Your task to perform on an android device: What's the weather? Image 0: 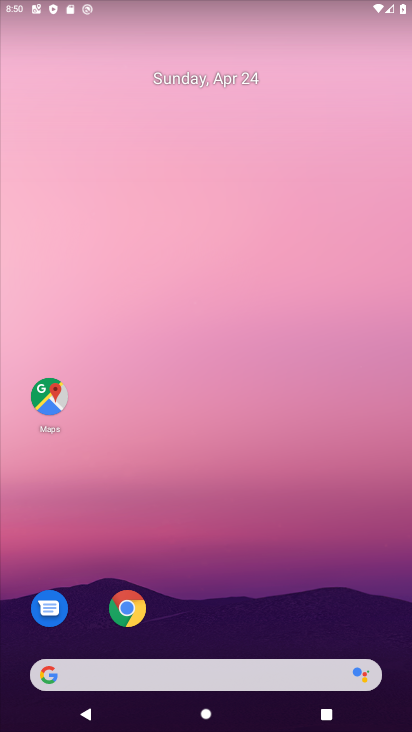
Step 0: drag from (268, 685) to (212, 130)
Your task to perform on an android device: What's the weather? Image 1: 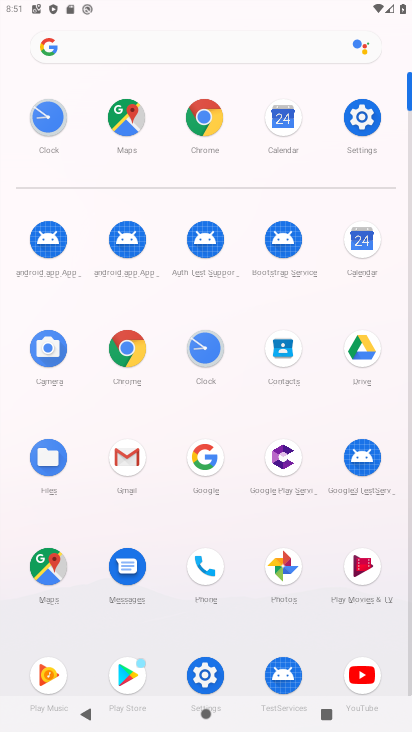
Step 1: click (175, 39)
Your task to perform on an android device: What's the weather? Image 2: 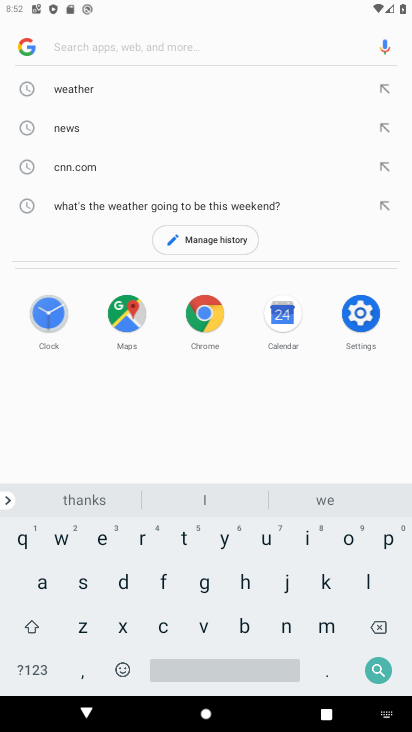
Step 2: click (126, 89)
Your task to perform on an android device: What's the weather? Image 3: 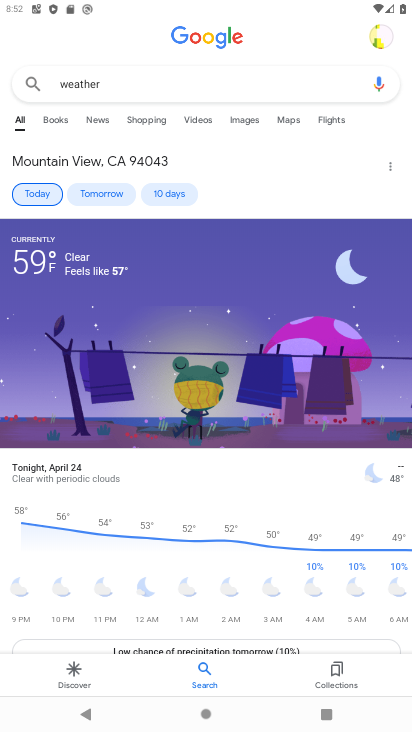
Step 3: task complete